Your task to perform on an android device: turn off smart reply in the gmail app Image 0: 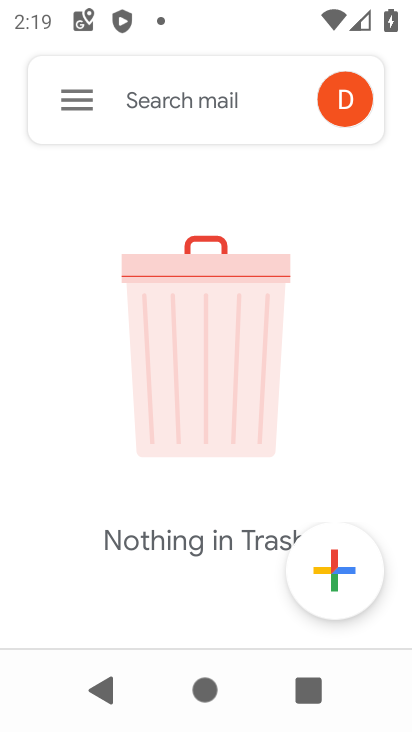
Step 0: click (71, 105)
Your task to perform on an android device: turn off smart reply in the gmail app Image 1: 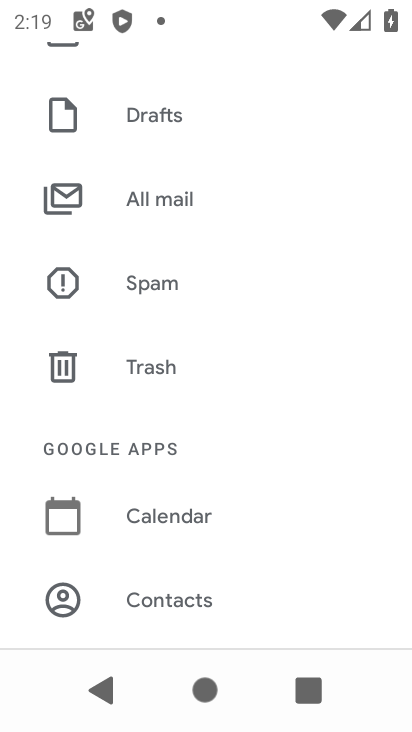
Step 1: drag from (229, 502) to (231, 128)
Your task to perform on an android device: turn off smart reply in the gmail app Image 2: 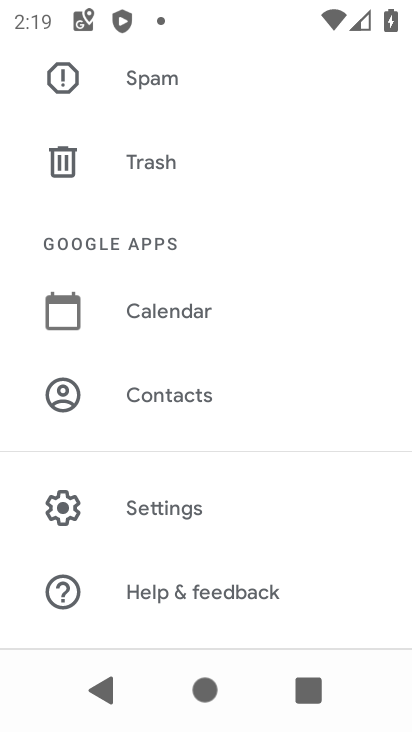
Step 2: click (145, 509)
Your task to perform on an android device: turn off smart reply in the gmail app Image 3: 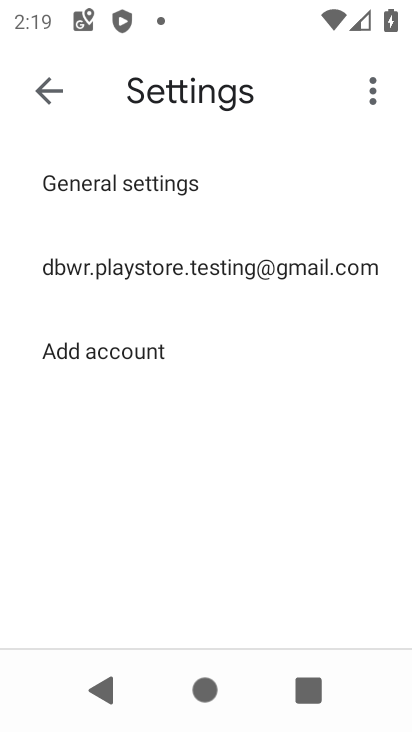
Step 3: click (126, 268)
Your task to perform on an android device: turn off smart reply in the gmail app Image 4: 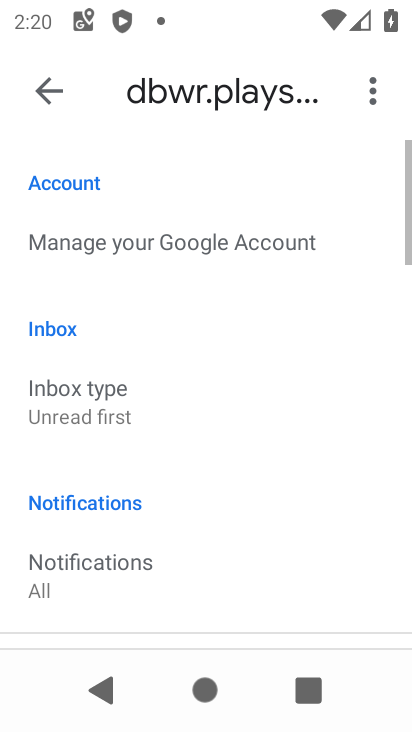
Step 4: drag from (209, 472) to (205, 162)
Your task to perform on an android device: turn off smart reply in the gmail app Image 5: 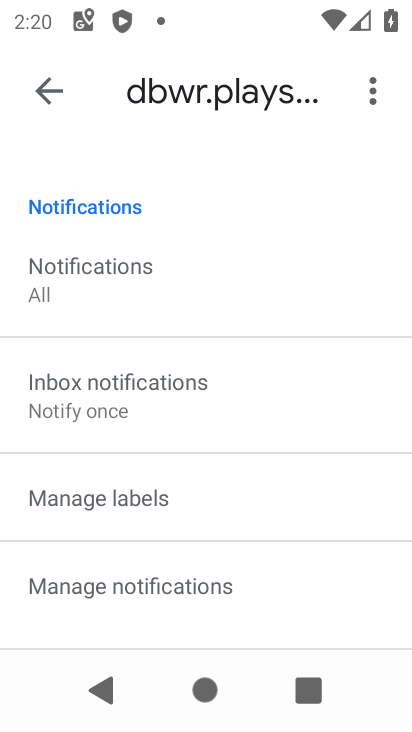
Step 5: drag from (179, 483) to (165, 130)
Your task to perform on an android device: turn off smart reply in the gmail app Image 6: 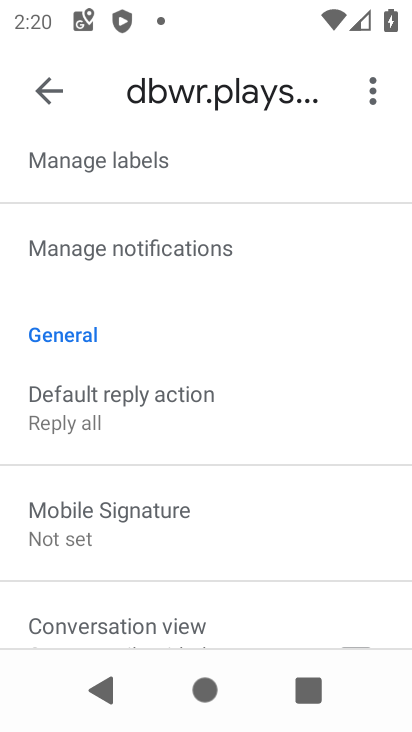
Step 6: drag from (170, 449) to (155, 114)
Your task to perform on an android device: turn off smart reply in the gmail app Image 7: 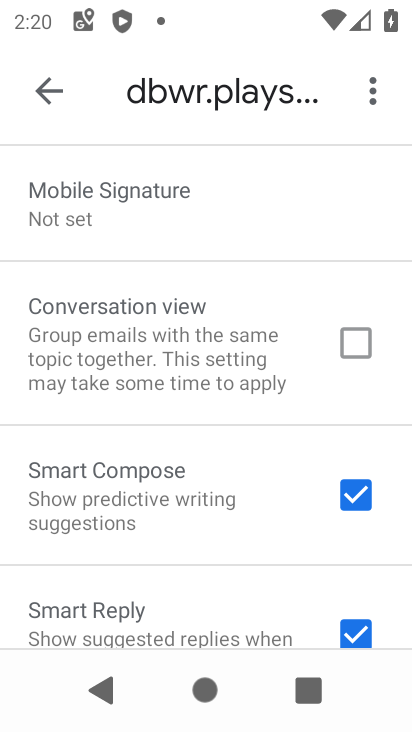
Step 7: drag from (141, 470) to (140, 202)
Your task to perform on an android device: turn off smart reply in the gmail app Image 8: 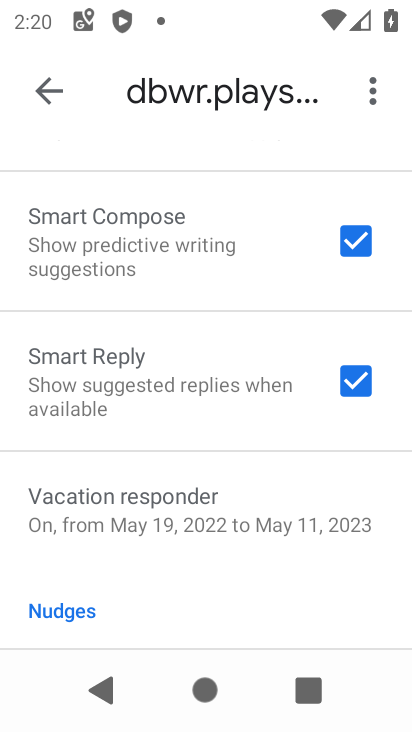
Step 8: click (352, 393)
Your task to perform on an android device: turn off smart reply in the gmail app Image 9: 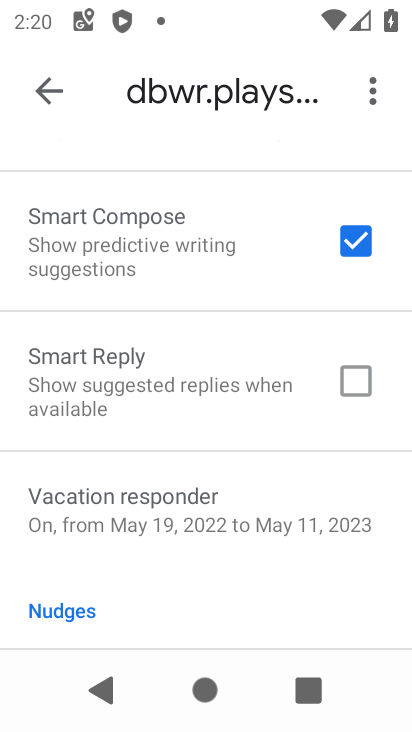
Step 9: task complete